Your task to perform on an android device: Open calendar and show me the fourth week of next month Image 0: 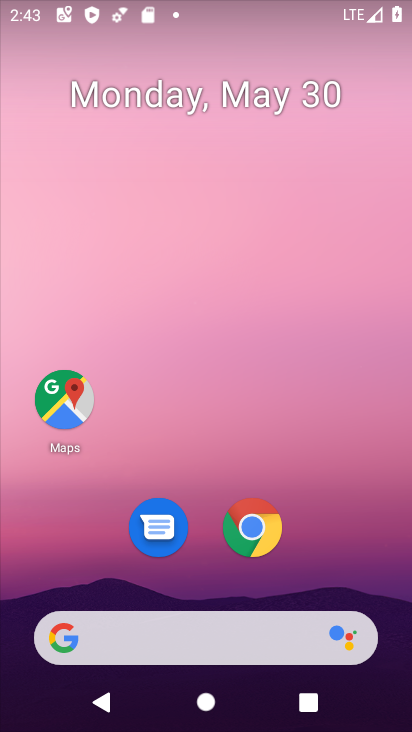
Step 0: drag from (312, 561) to (359, 50)
Your task to perform on an android device: Open calendar and show me the fourth week of next month Image 1: 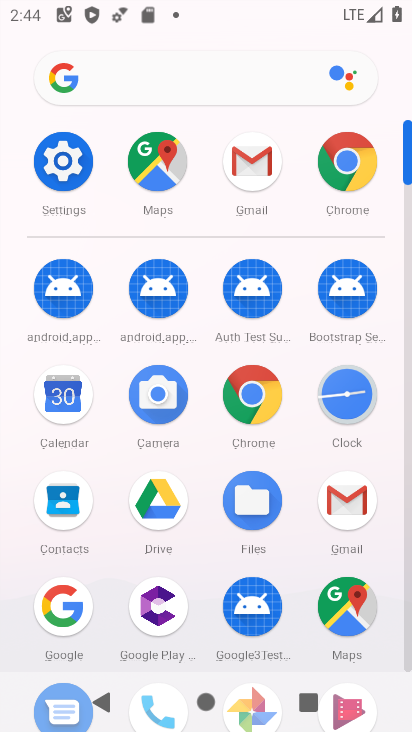
Step 1: click (61, 387)
Your task to perform on an android device: Open calendar and show me the fourth week of next month Image 2: 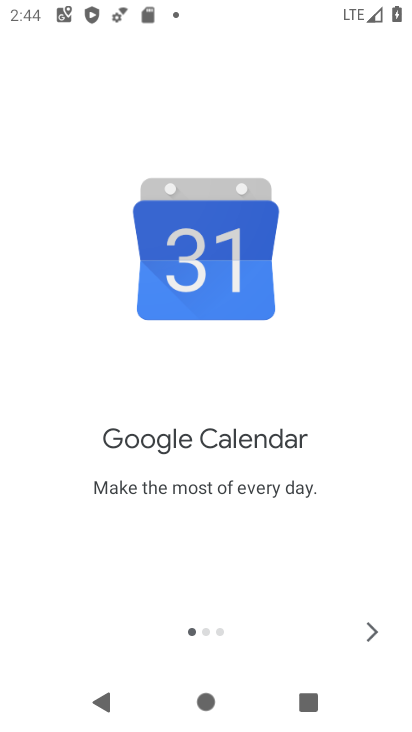
Step 2: click (370, 626)
Your task to perform on an android device: Open calendar and show me the fourth week of next month Image 3: 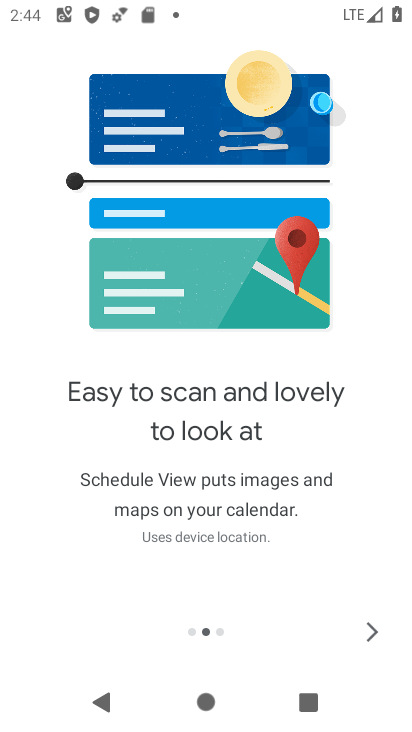
Step 3: click (370, 626)
Your task to perform on an android device: Open calendar and show me the fourth week of next month Image 4: 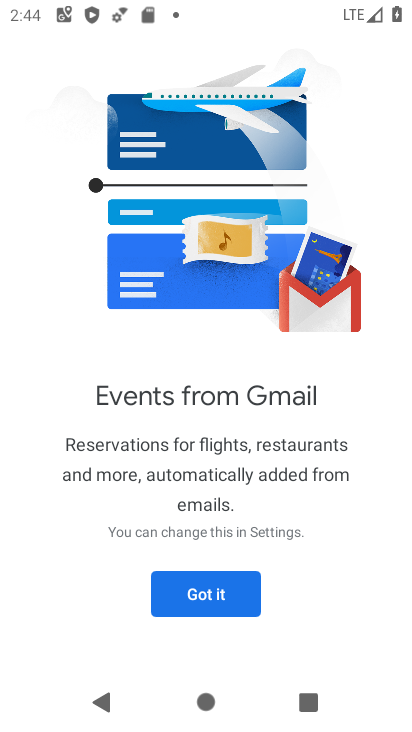
Step 4: click (199, 605)
Your task to perform on an android device: Open calendar and show me the fourth week of next month Image 5: 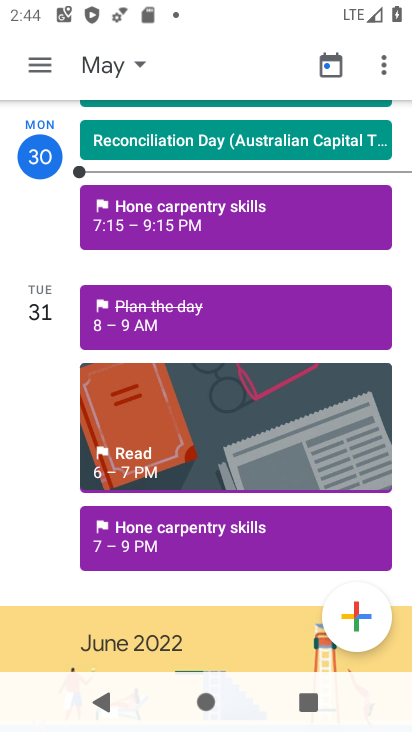
Step 5: click (109, 62)
Your task to perform on an android device: Open calendar and show me the fourth week of next month Image 6: 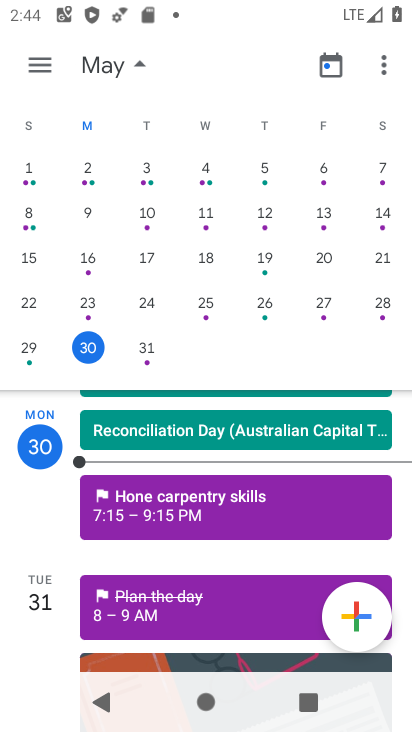
Step 6: drag from (363, 233) to (28, 229)
Your task to perform on an android device: Open calendar and show me the fourth week of next month Image 7: 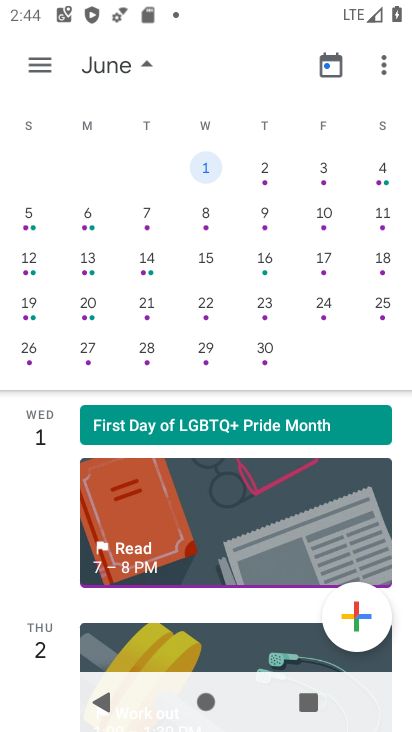
Step 7: click (204, 344)
Your task to perform on an android device: Open calendar and show me the fourth week of next month Image 8: 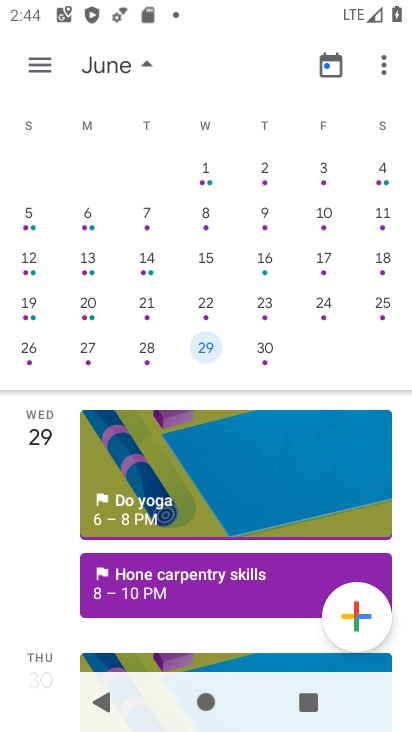
Step 8: task complete